Your task to perform on an android device: Open the stopwatch Image 0: 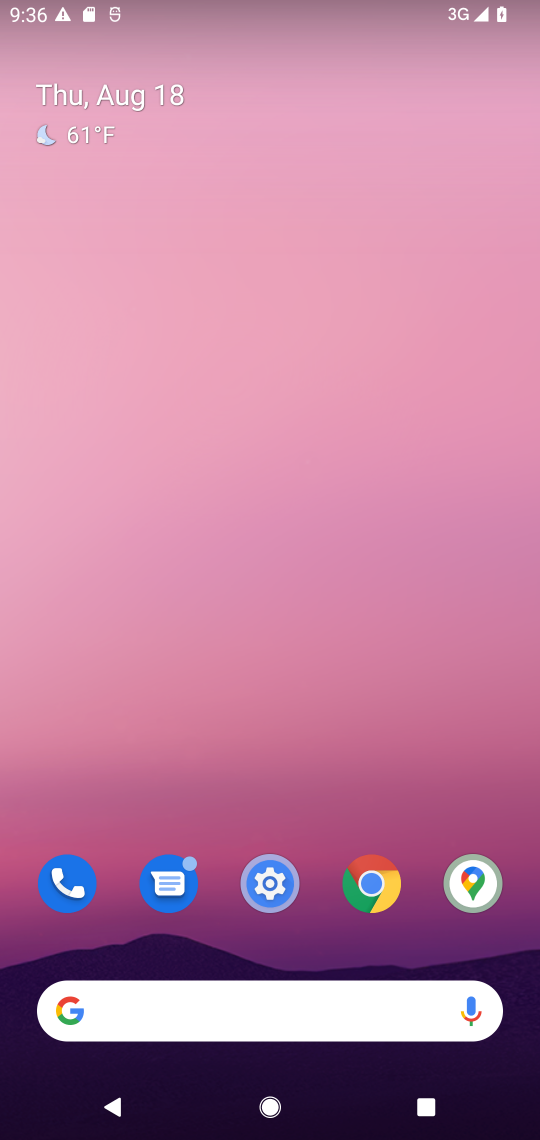
Step 0: drag from (30, 1073) to (123, 436)
Your task to perform on an android device: Open the stopwatch Image 1: 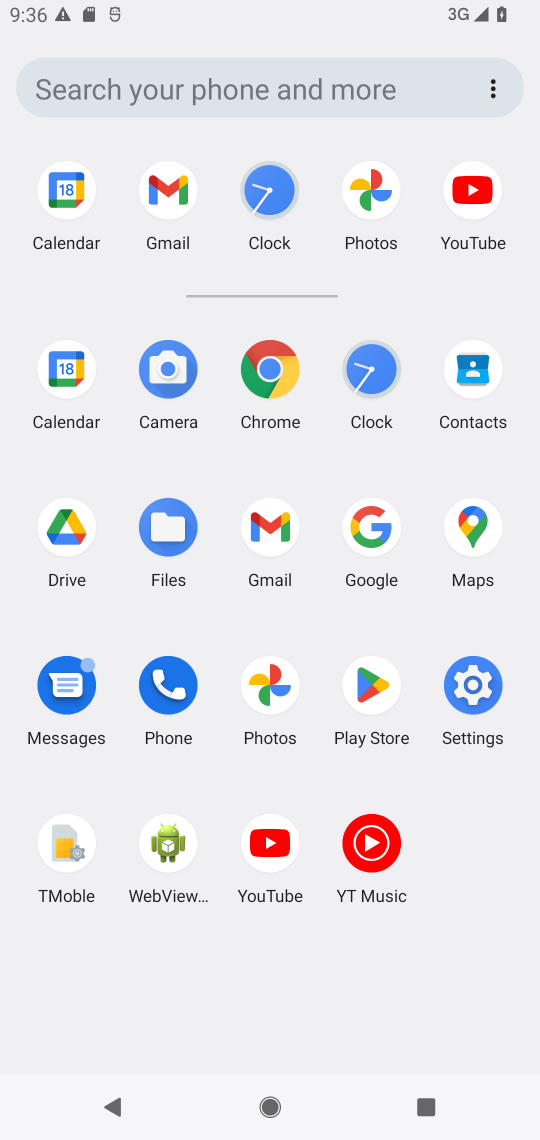
Step 1: click (380, 386)
Your task to perform on an android device: Open the stopwatch Image 2: 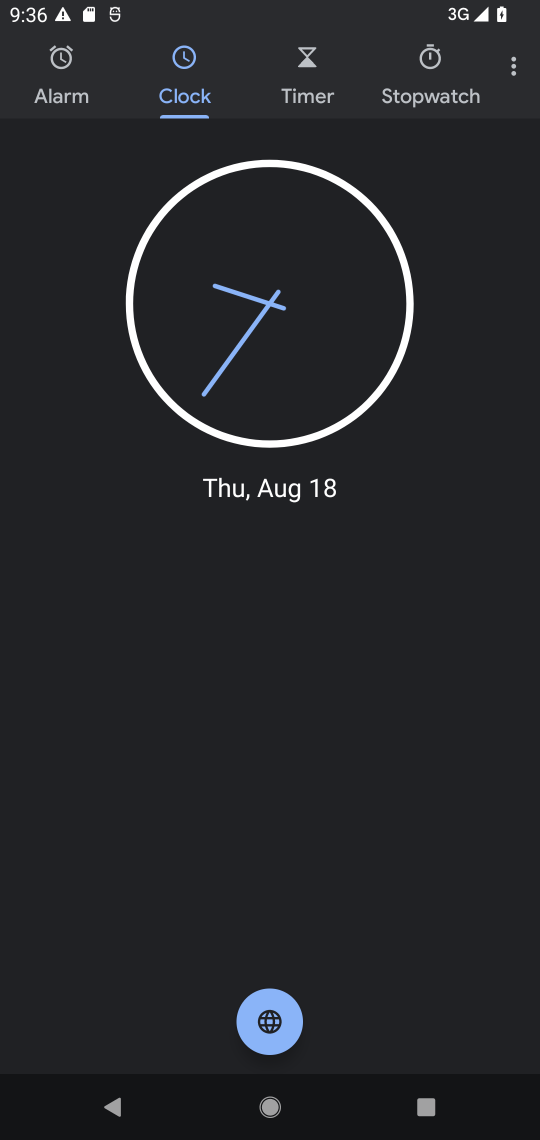
Step 2: click (455, 88)
Your task to perform on an android device: Open the stopwatch Image 3: 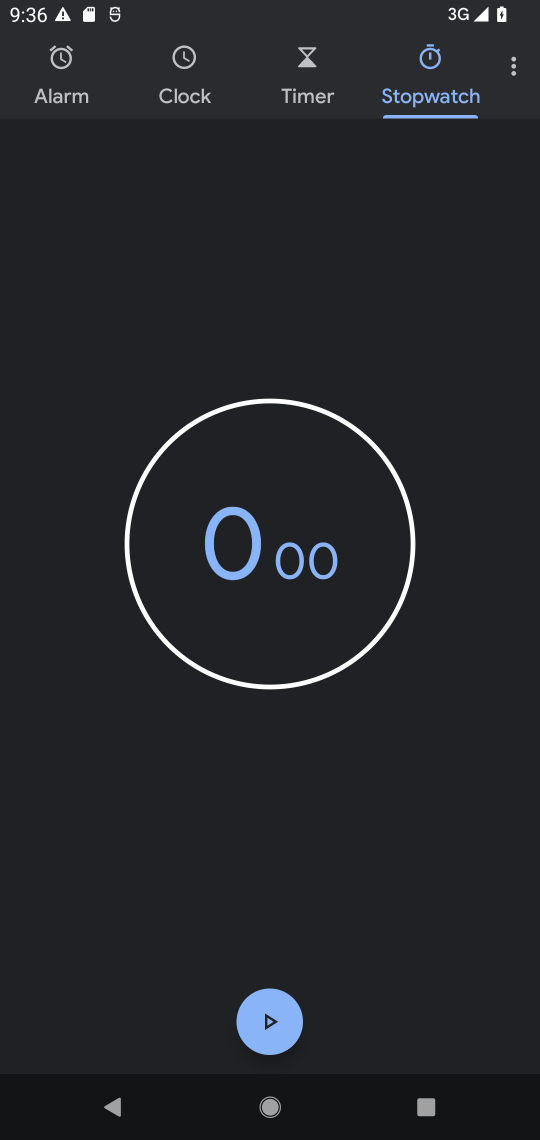
Step 3: click (239, 598)
Your task to perform on an android device: Open the stopwatch Image 4: 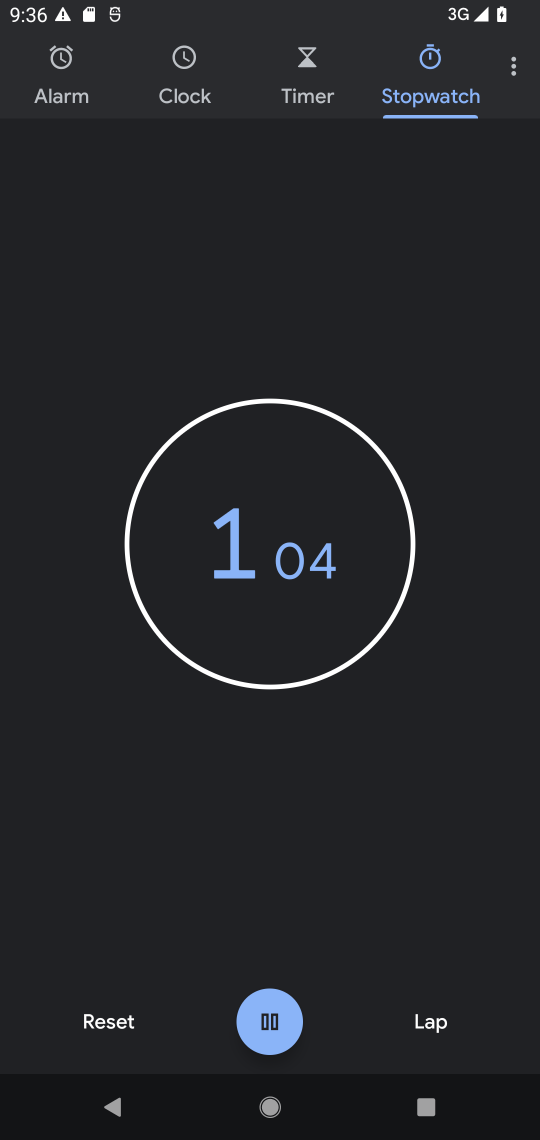
Step 4: click (239, 598)
Your task to perform on an android device: Open the stopwatch Image 5: 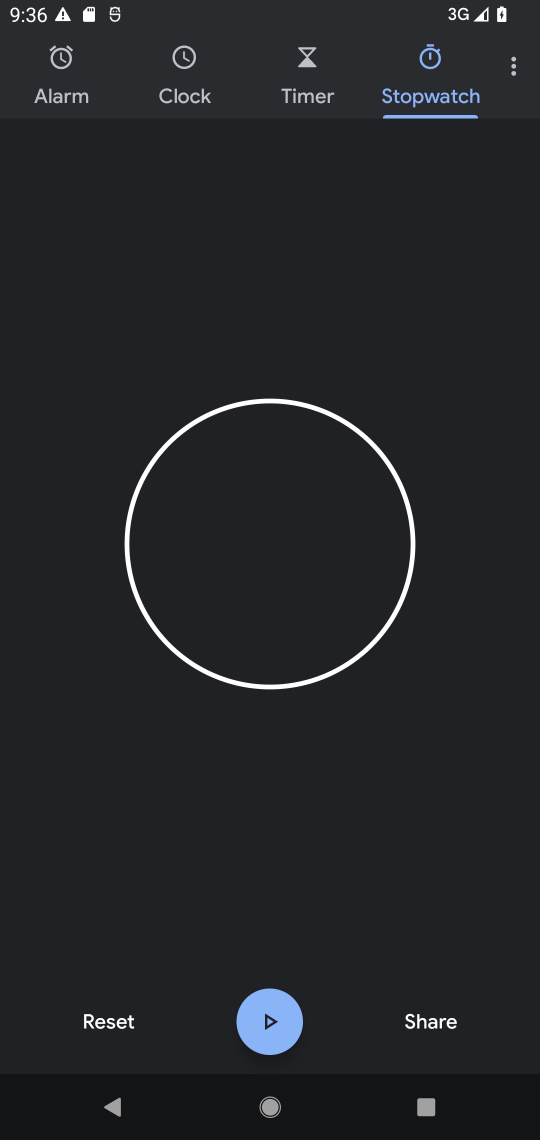
Step 5: task complete